Your task to perform on an android device: When is my next meeting? Image 0: 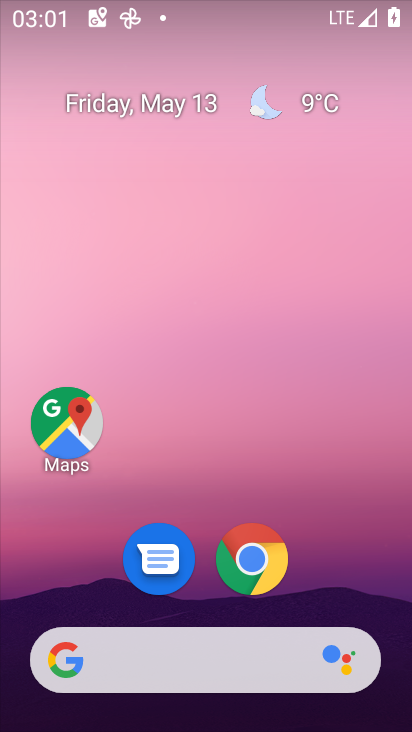
Step 0: drag from (393, 666) to (364, 164)
Your task to perform on an android device: When is my next meeting? Image 1: 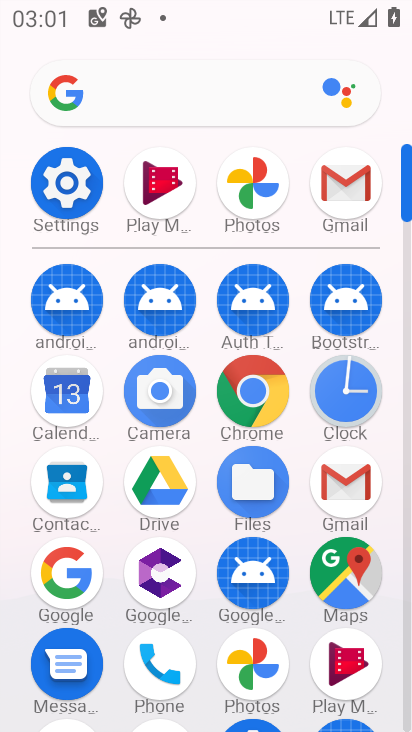
Step 1: click (61, 399)
Your task to perform on an android device: When is my next meeting? Image 2: 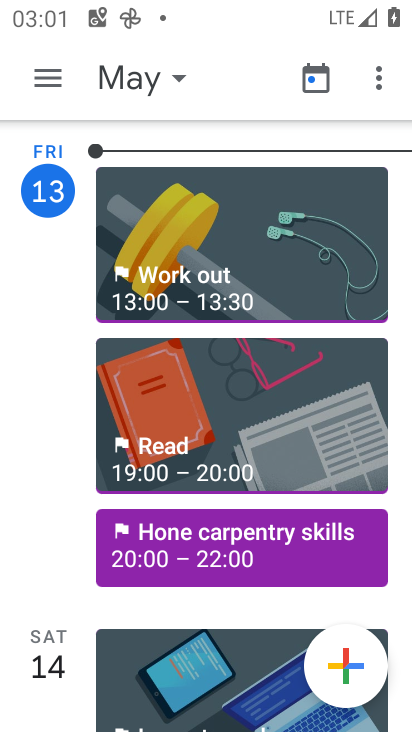
Step 2: click (48, 85)
Your task to perform on an android device: When is my next meeting? Image 3: 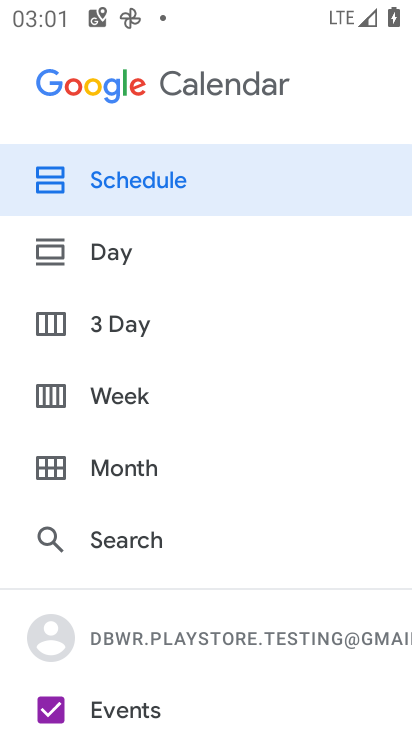
Step 3: click (123, 185)
Your task to perform on an android device: When is my next meeting? Image 4: 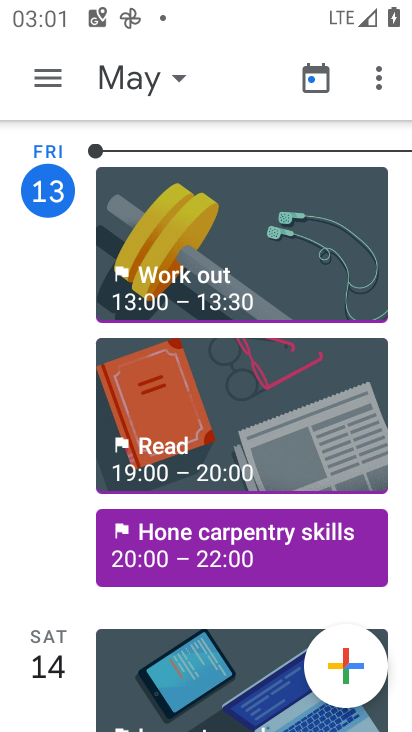
Step 4: task complete